Your task to perform on an android device: check battery use Image 0: 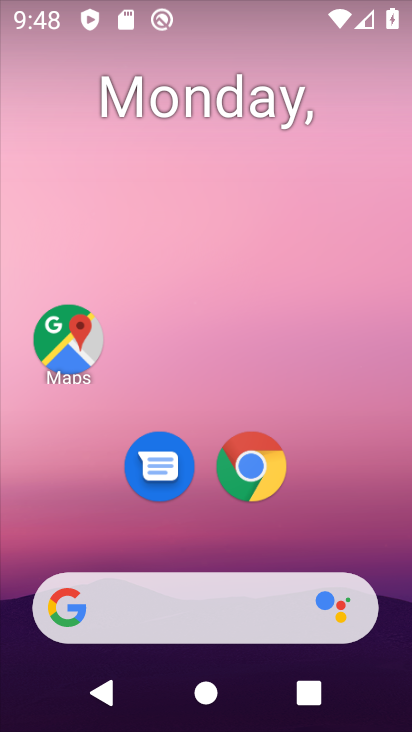
Step 0: drag from (212, 400) to (229, 247)
Your task to perform on an android device: check battery use Image 1: 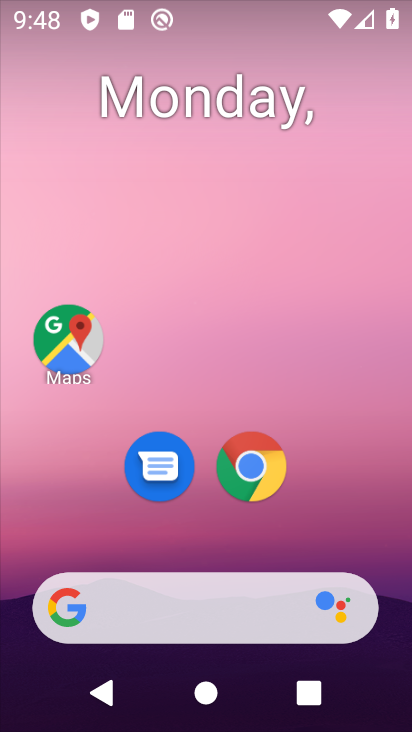
Step 1: drag from (217, 554) to (206, 239)
Your task to perform on an android device: check battery use Image 2: 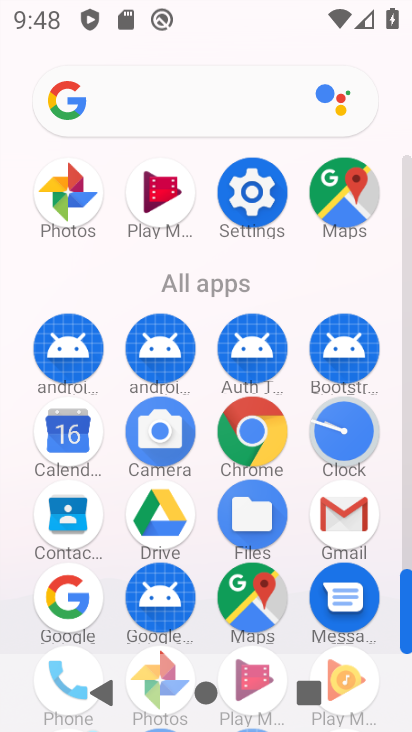
Step 2: click (242, 195)
Your task to perform on an android device: check battery use Image 3: 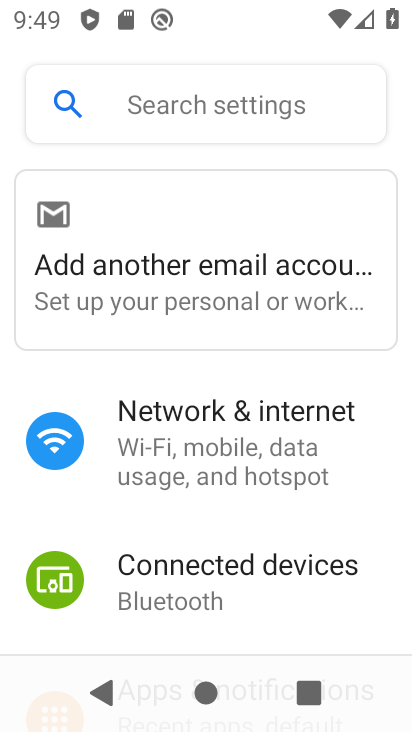
Step 3: drag from (192, 610) to (234, 316)
Your task to perform on an android device: check battery use Image 4: 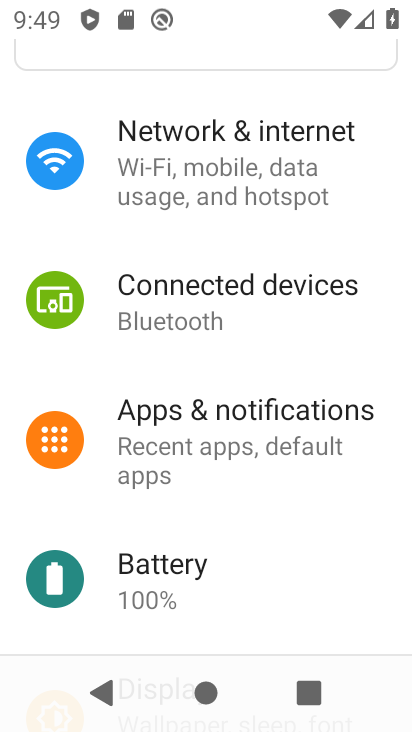
Step 4: click (200, 576)
Your task to perform on an android device: check battery use Image 5: 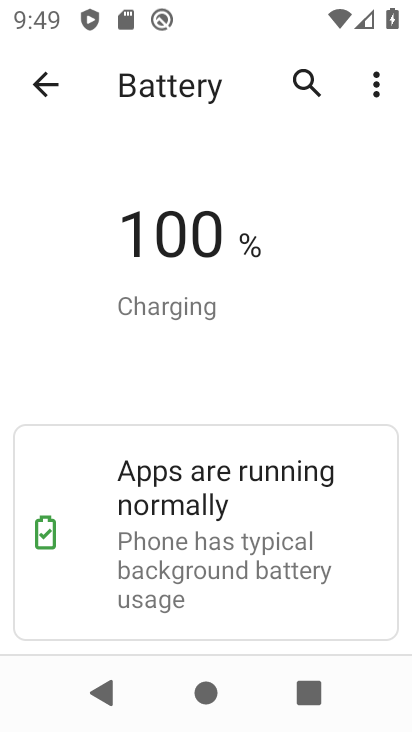
Step 5: task complete